Your task to perform on an android device: turn on the 24-hour format for clock Image 0: 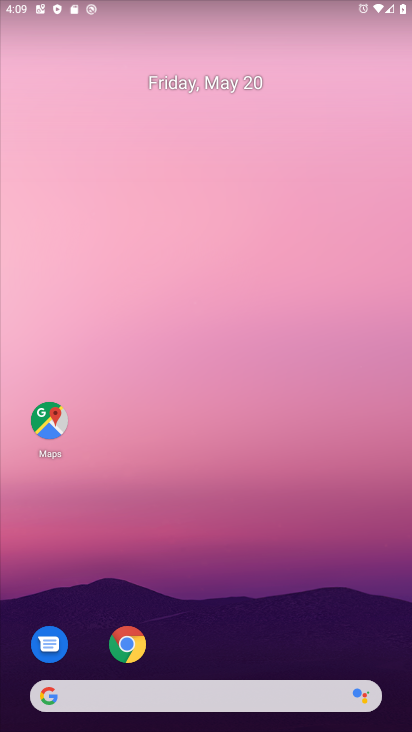
Step 0: drag from (296, 628) to (314, 119)
Your task to perform on an android device: turn on the 24-hour format for clock Image 1: 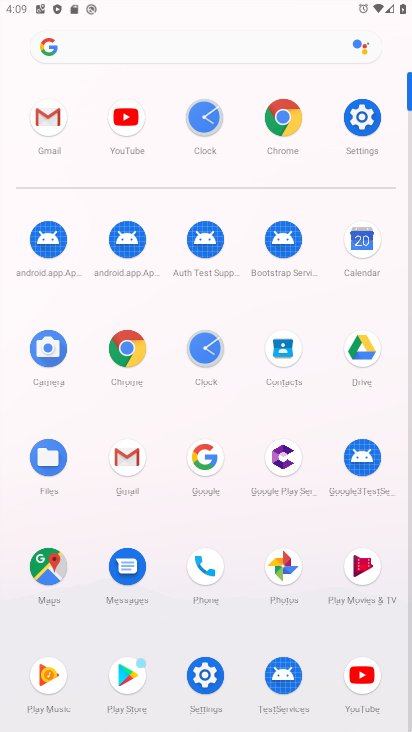
Step 1: click (209, 128)
Your task to perform on an android device: turn on the 24-hour format for clock Image 2: 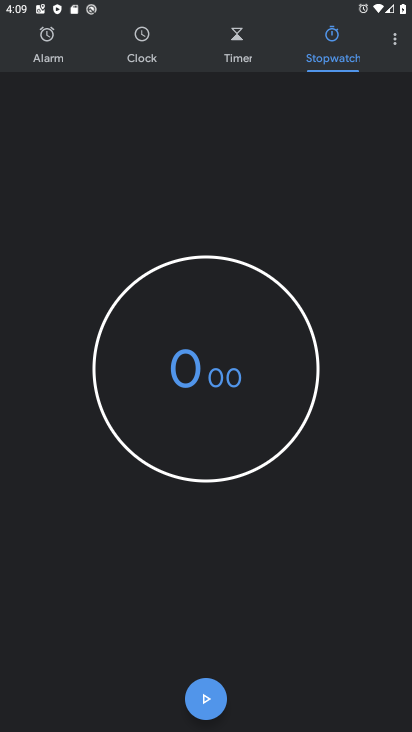
Step 2: click (404, 39)
Your task to perform on an android device: turn on the 24-hour format for clock Image 3: 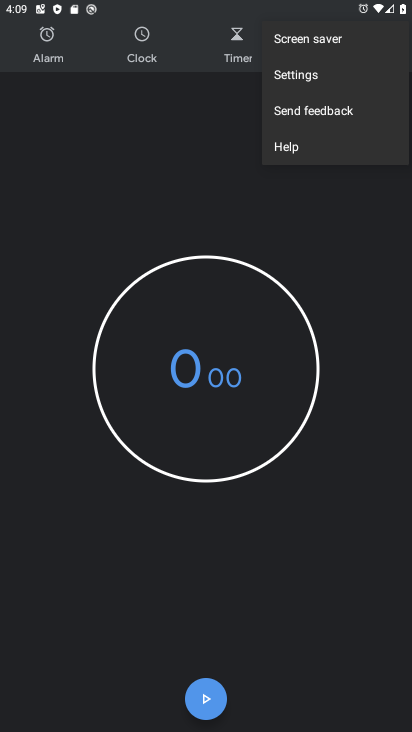
Step 3: click (364, 82)
Your task to perform on an android device: turn on the 24-hour format for clock Image 4: 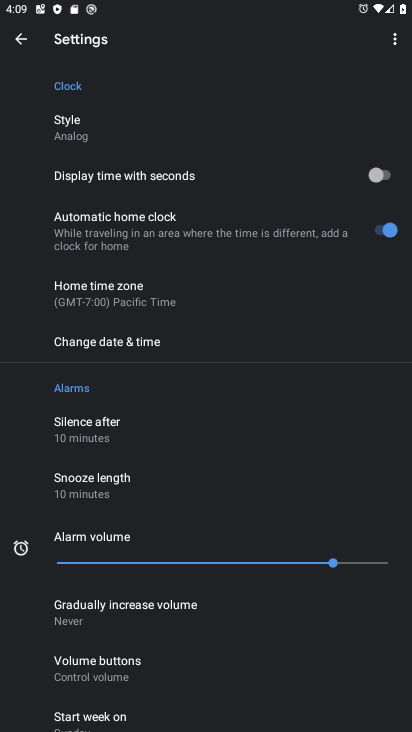
Step 4: click (165, 327)
Your task to perform on an android device: turn on the 24-hour format for clock Image 5: 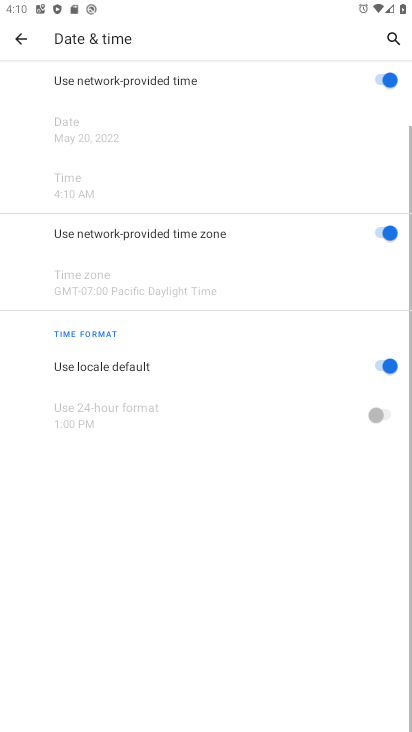
Step 5: click (364, 376)
Your task to perform on an android device: turn on the 24-hour format for clock Image 6: 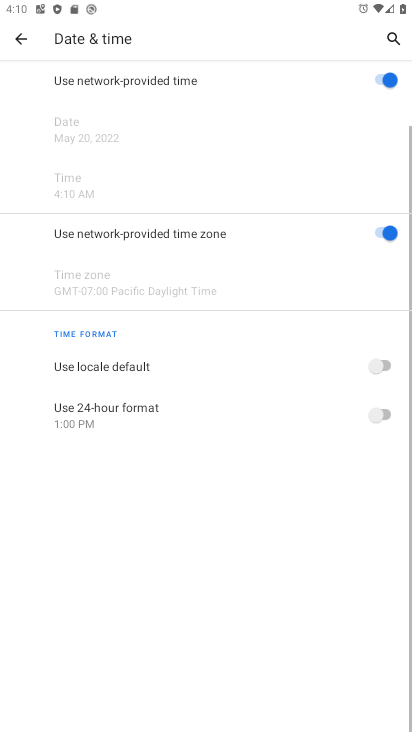
Step 6: click (378, 414)
Your task to perform on an android device: turn on the 24-hour format for clock Image 7: 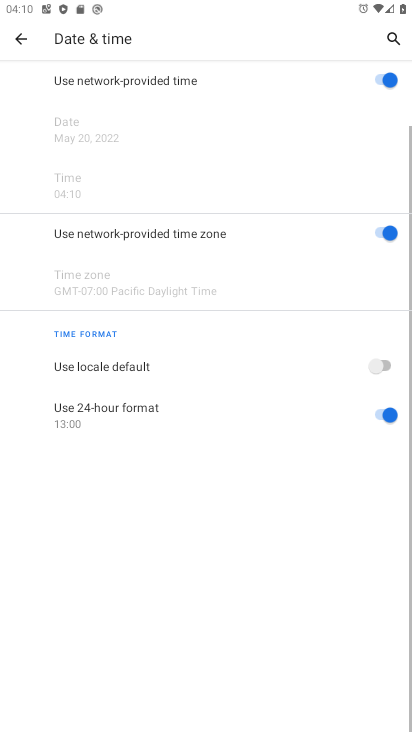
Step 7: click (220, 423)
Your task to perform on an android device: turn on the 24-hour format for clock Image 8: 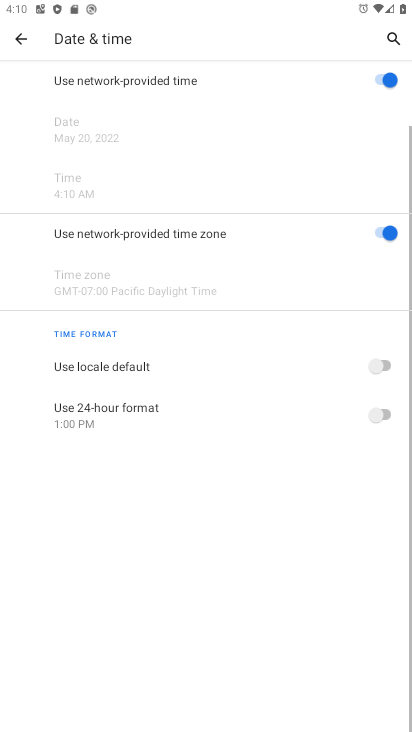
Step 8: click (220, 423)
Your task to perform on an android device: turn on the 24-hour format for clock Image 9: 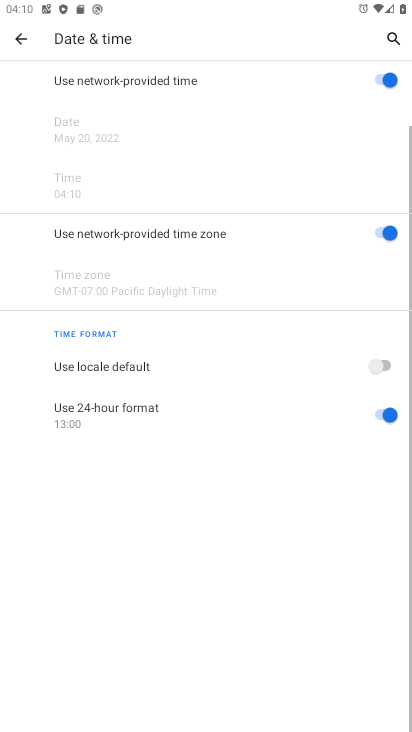
Step 9: task complete